Your task to perform on an android device: add a contact Image 0: 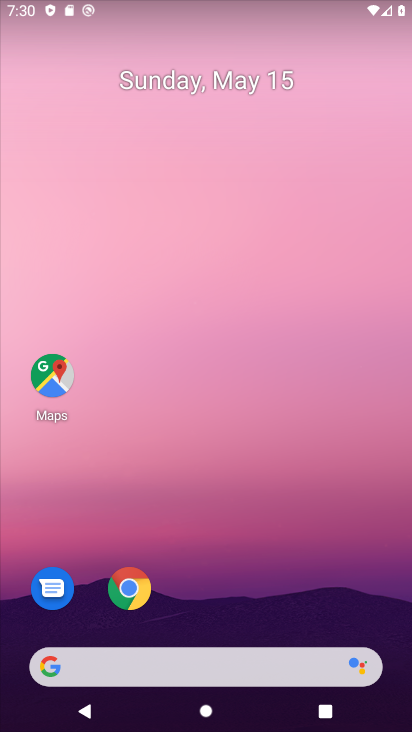
Step 0: press home button
Your task to perform on an android device: add a contact Image 1: 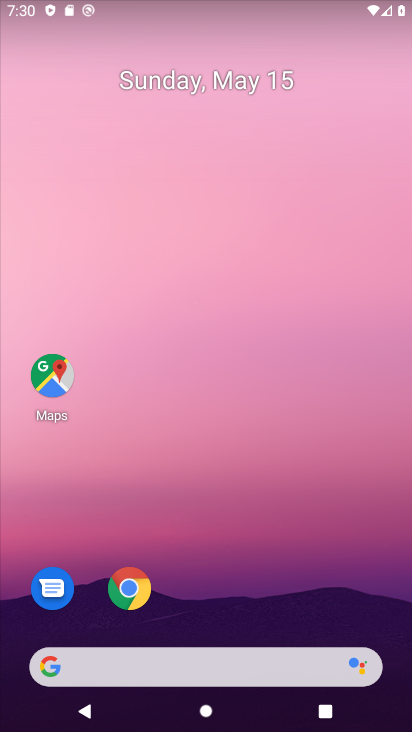
Step 1: click (185, 16)
Your task to perform on an android device: add a contact Image 2: 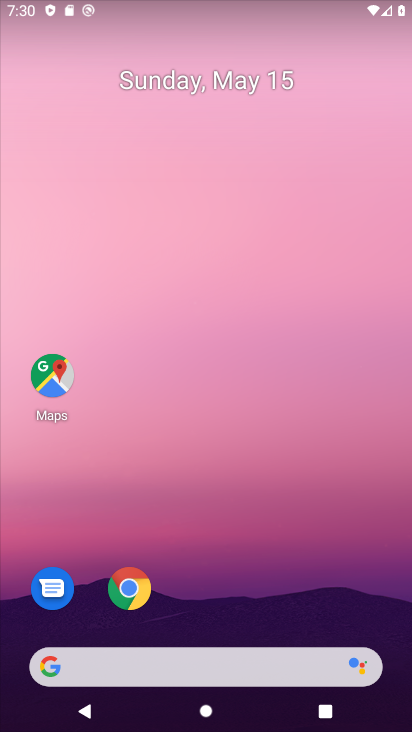
Step 2: drag from (212, 616) to (205, 68)
Your task to perform on an android device: add a contact Image 3: 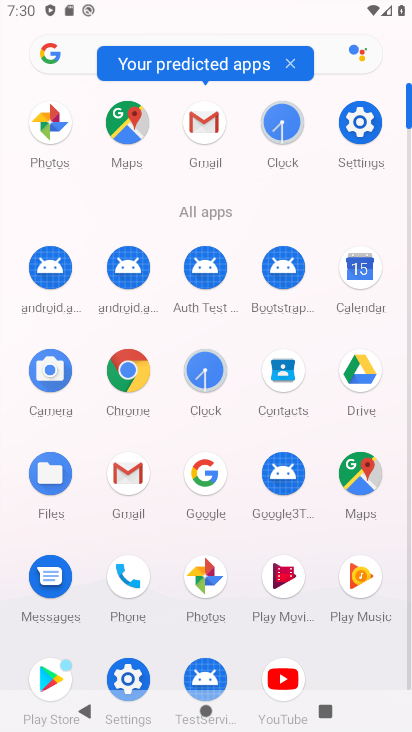
Step 3: click (278, 374)
Your task to perform on an android device: add a contact Image 4: 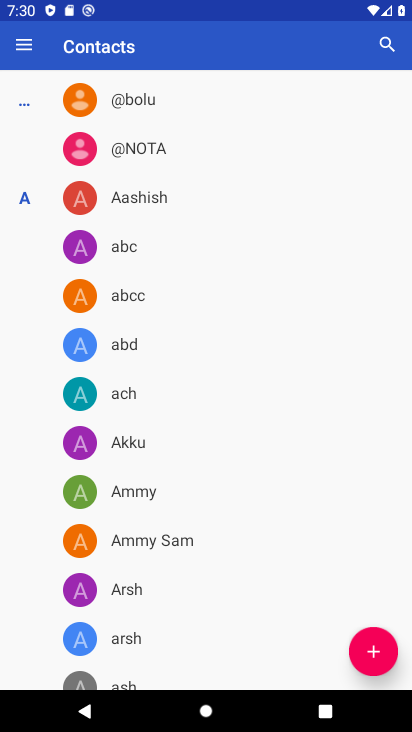
Step 4: click (379, 651)
Your task to perform on an android device: add a contact Image 5: 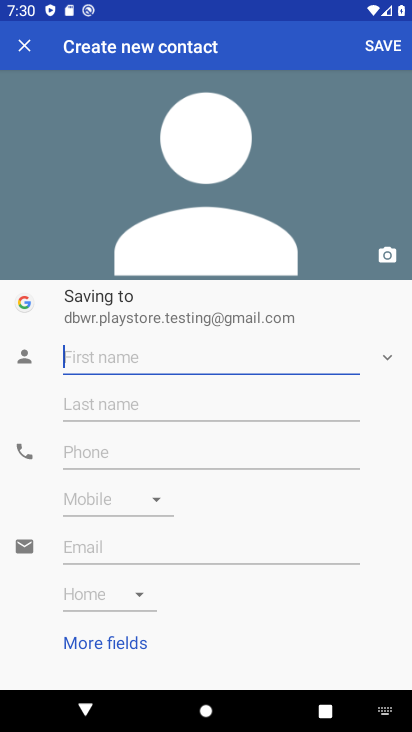
Step 5: type "nhdchfd"
Your task to perform on an android device: add a contact Image 6: 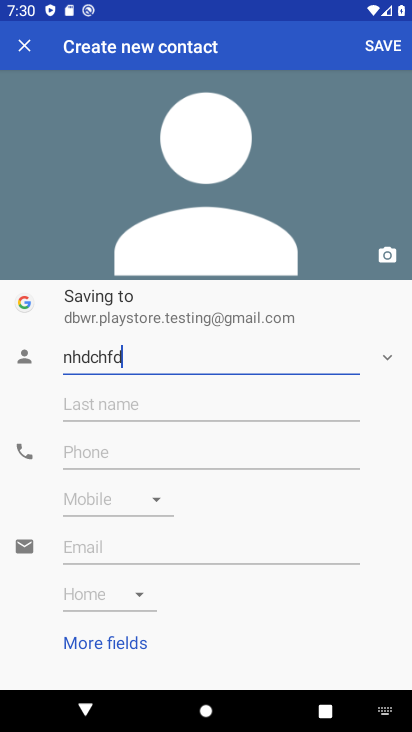
Step 6: click (375, 42)
Your task to perform on an android device: add a contact Image 7: 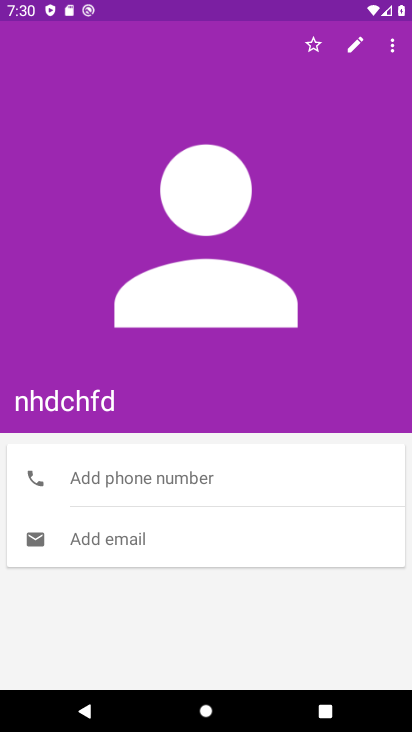
Step 7: task complete